Your task to perform on an android device: Open calendar and show me the second week of next month Image 0: 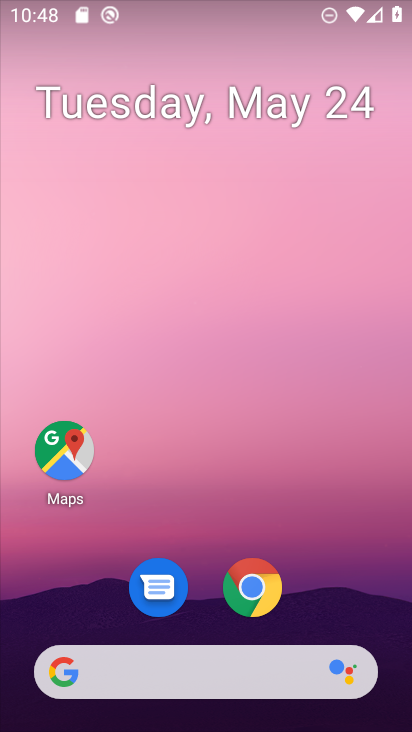
Step 0: drag from (346, 506) to (317, 222)
Your task to perform on an android device: Open calendar and show me the second week of next month Image 1: 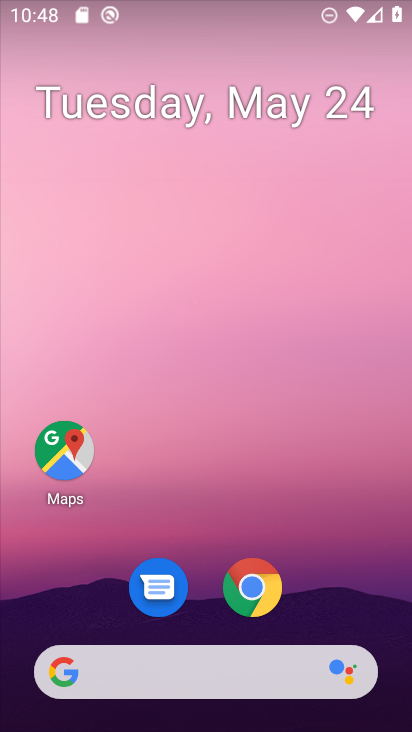
Step 1: drag from (363, 576) to (214, 4)
Your task to perform on an android device: Open calendar and show me the second week of next month Image 2: 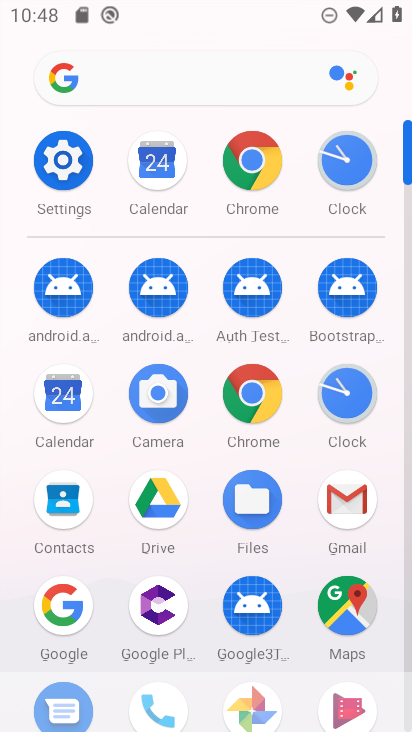
Step 2: click (66, 401)
Your task to perform on an android device: Open calendar and show me the second week of next month Image 3: 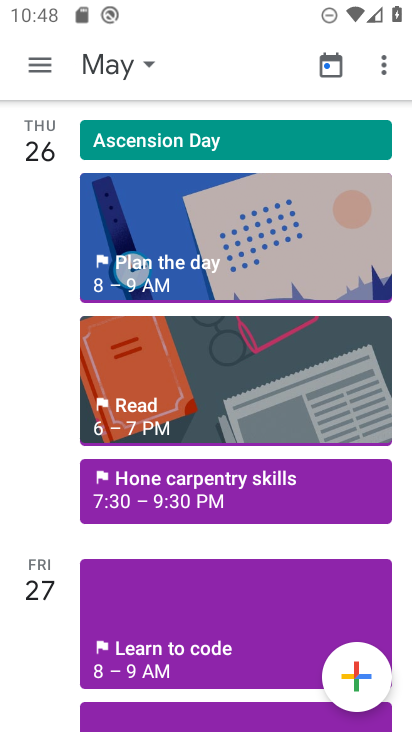
Step 3: click (139, 69)
Your task to perform on an android device: Open calendar and show me the second week of next month Image 4: 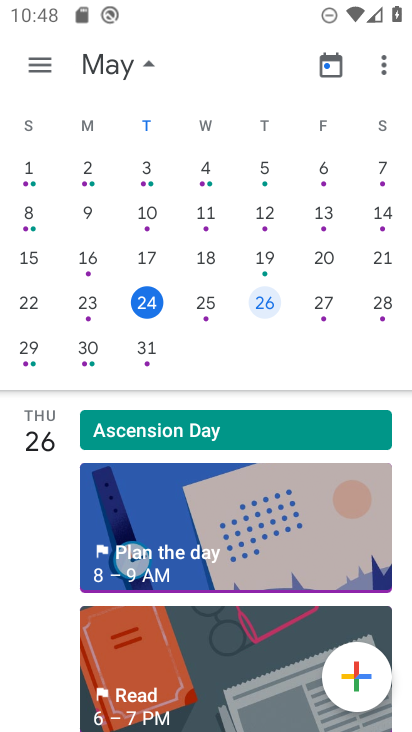
Step 4: drag from (317, 231) to (4, 96)
Your task to perform on an android device: Open calendar and show me the second week of next month Image 5: 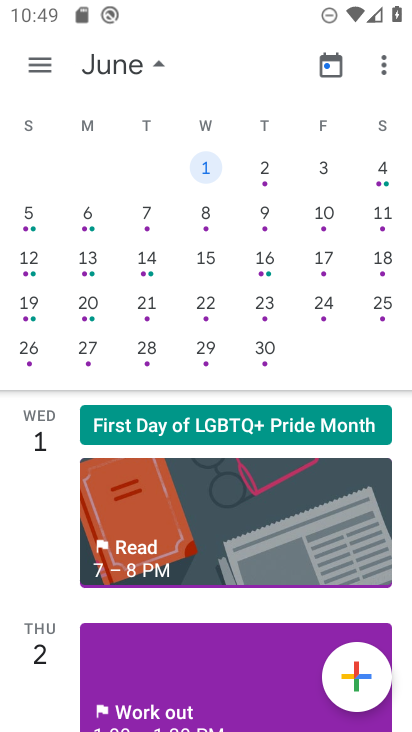
Step 5: click (214, 225)
Your task to perform on an android device: Open calendar and show me the second week of next month Image 6: 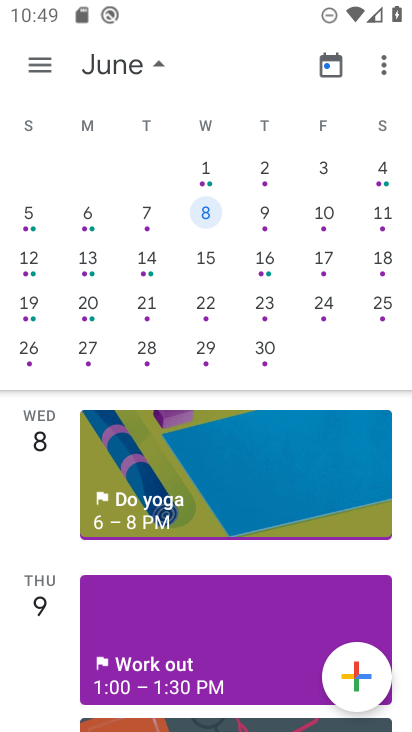
Step 6: task complete